Your task to perform on an android device: Open Google Chrome Image 0: 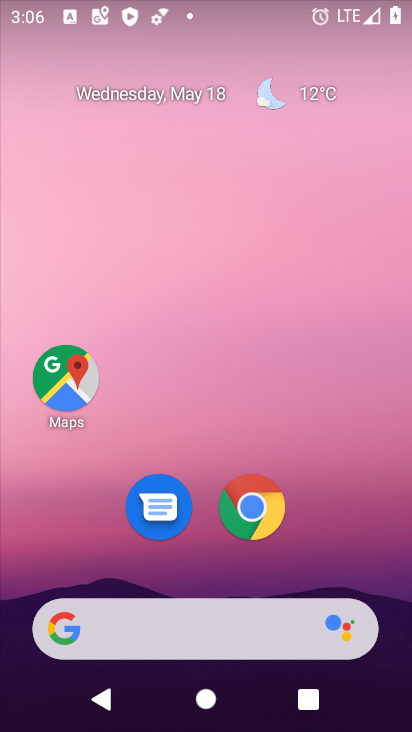
Step 0: click (254, 502)
Your task to perform on an android device: Open Google Chrome Image 1: 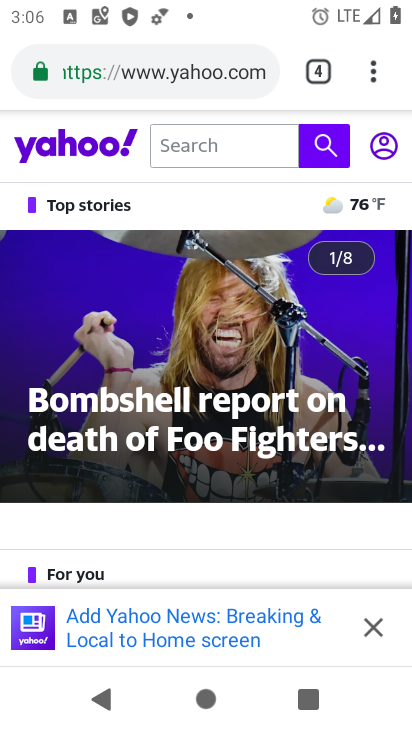
Step 1: task complete